Your task to perform on an android device: show emergency info Image 0: 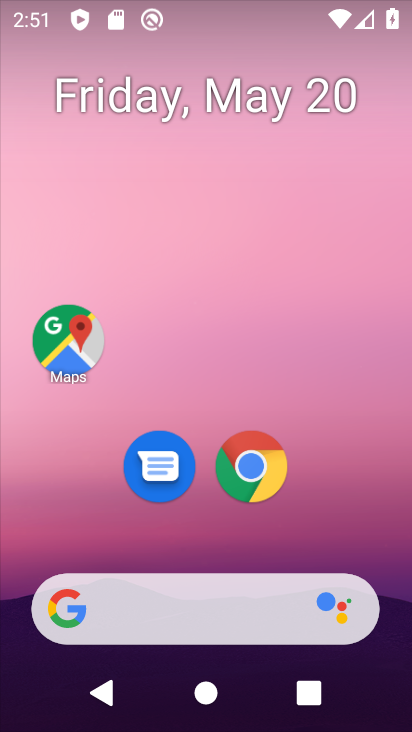
Step 0: drag from (211, 570) to (221, 159)
Your task to perform on an android device: show emergency info Image 1: 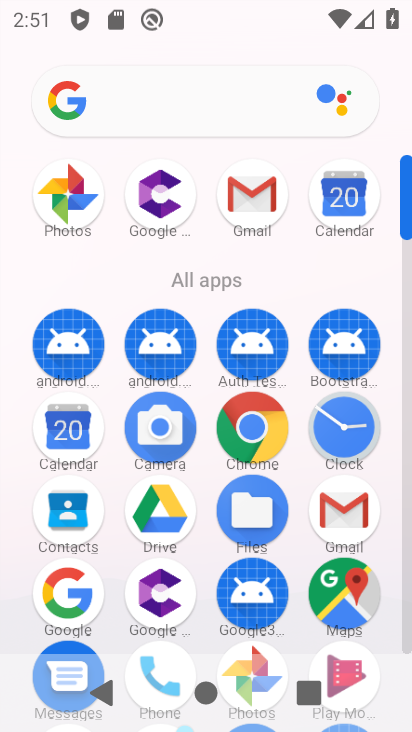
Step 1: drag from (116, 565) to (149, 225)
Your task to perform on an android device: show emergency info Image 2: 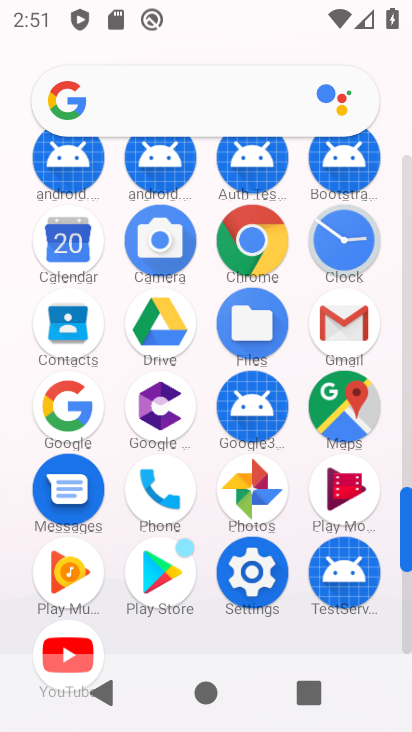
Step 2: click (261, 569)
Your task to perform on an android device: show emergency info Image 3: 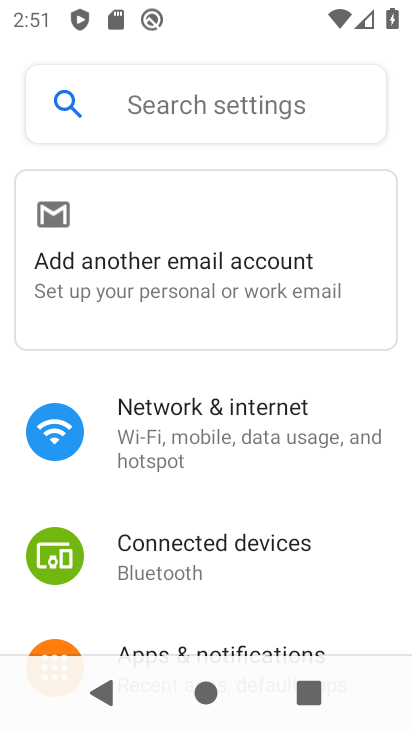
Step 3: drag from (159, 590) to (226, 153)
Your task to perform on an android device: show emergency info Image 4: 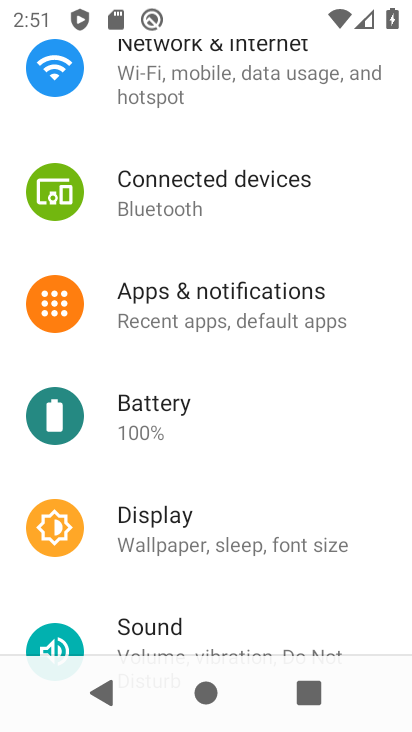
Step 4: drag from (204, 596) to (231, 186)
Your task to perform on an android device: show emergency info Image 5: 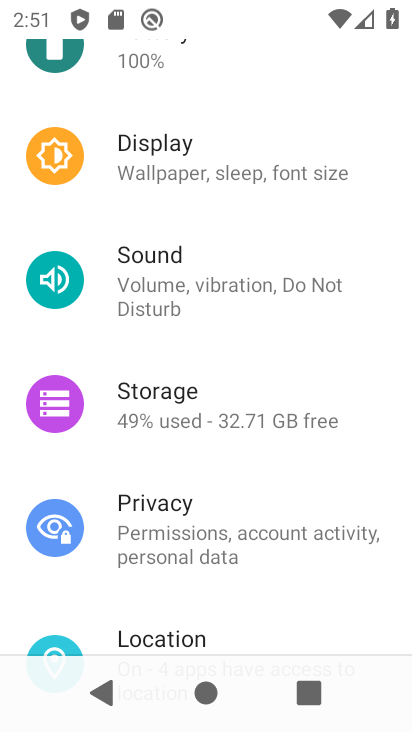
Step 5: drag from (197, 622) to (254, 219)
Your task to perform on an android device: show emergency info Image 6: 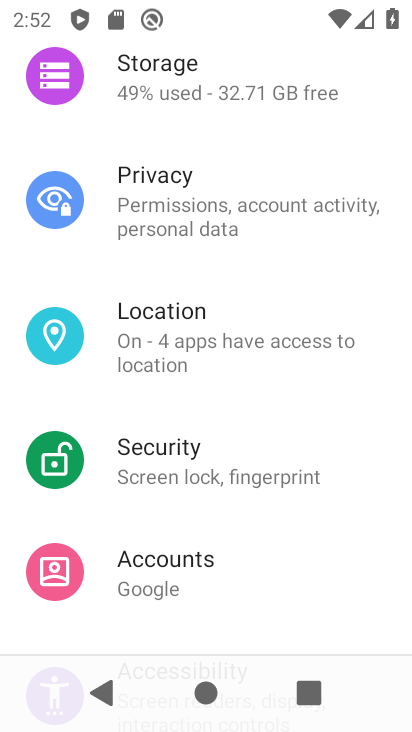
Step 6: drag from (235, 593) to (255, 188)
Your task to perform on an android device: show emergency info Image 7: 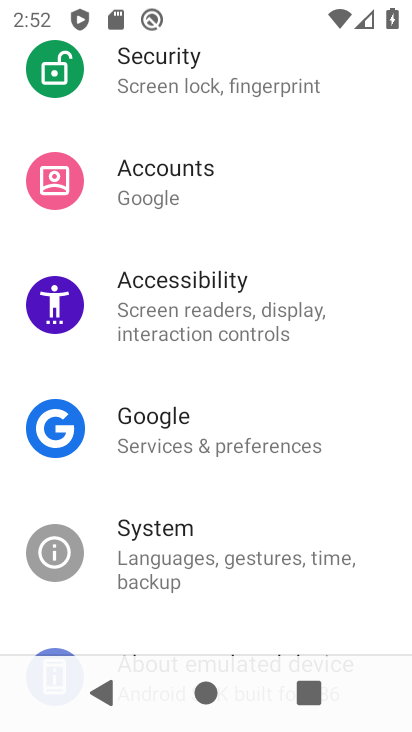
Step 7: drag from (200, 604) to (233, 238)
Your task to perform on an android device: show emergency info Image 8: 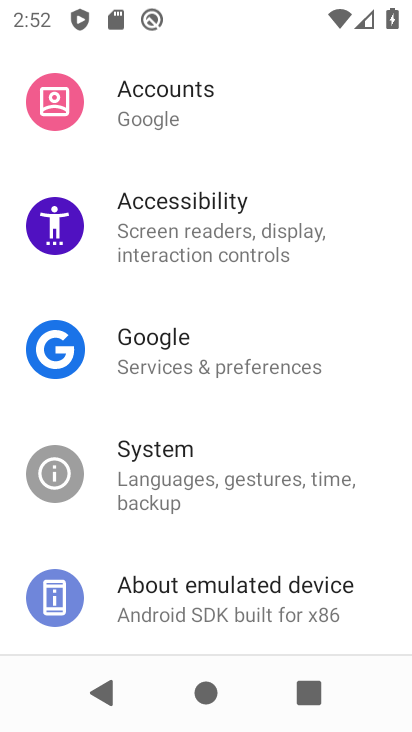
Step 8: click (223, 598)
Your task to perform on an android device: show emergency info Image 9: 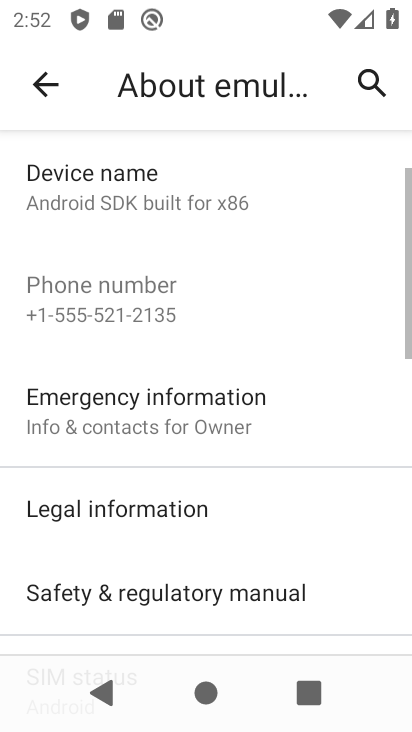
Step 9: click (201, 409)
Your task to perform on an android device: show emergency info Image 10: 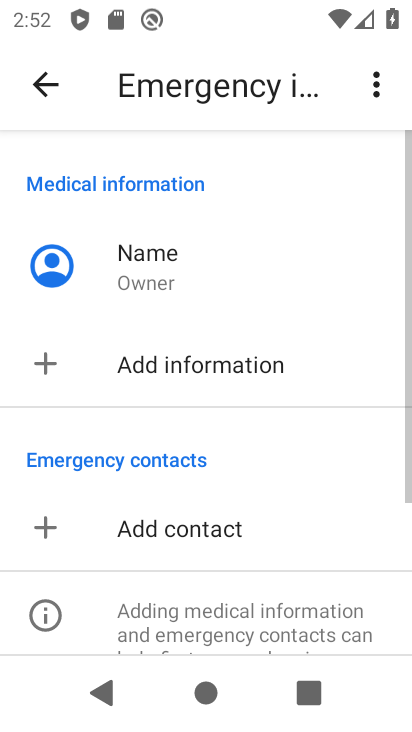
Step 10: task complete